Your task to perform on an android device: Do I have any events this weekend? Image 0: 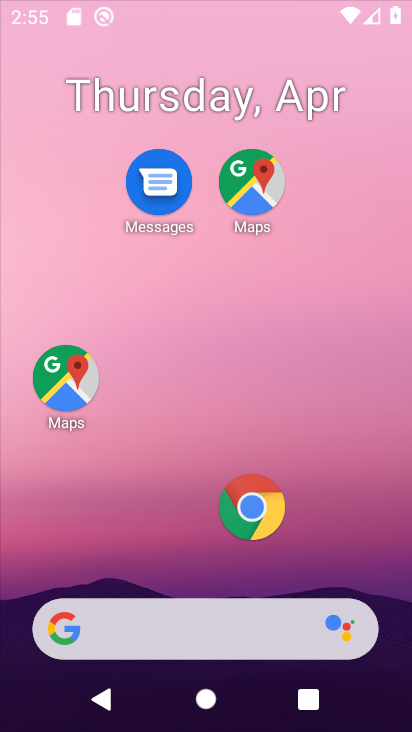
Step 0: click (241, 485)
Your task to perform on an android device: Do I have any events this weekend? Image 1: 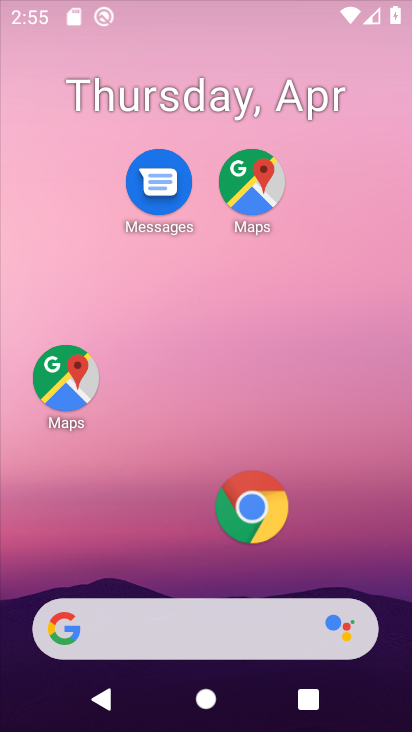
Step 1: drag from (152, 547) to (223, 268)
Your task to perform on an android device: Do I have any events this weekend? Image 2: 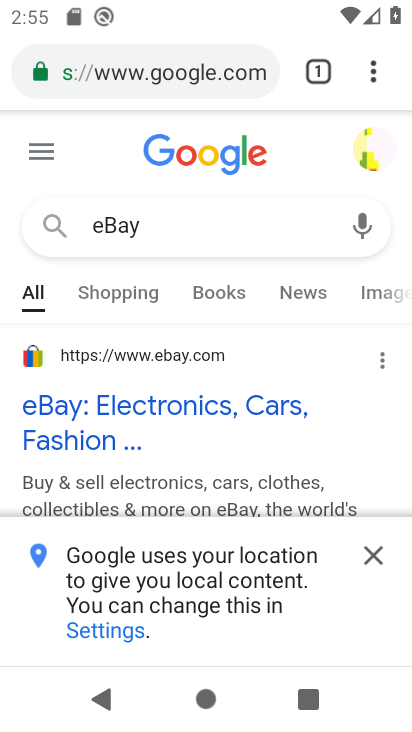
Step 2: press home button
Your task to perform on an android device: Do I have any events this weekend? Image 3: 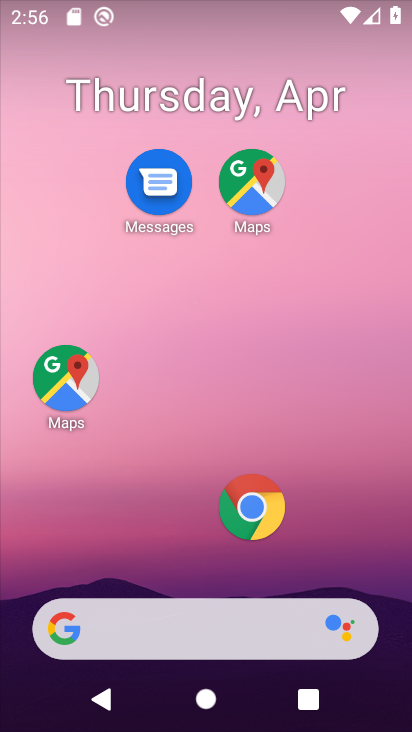
Step 3: drag from (153, 540) to (284, 71)
Your task to perform on an android device: Do I have any events this weekend? Image 4: 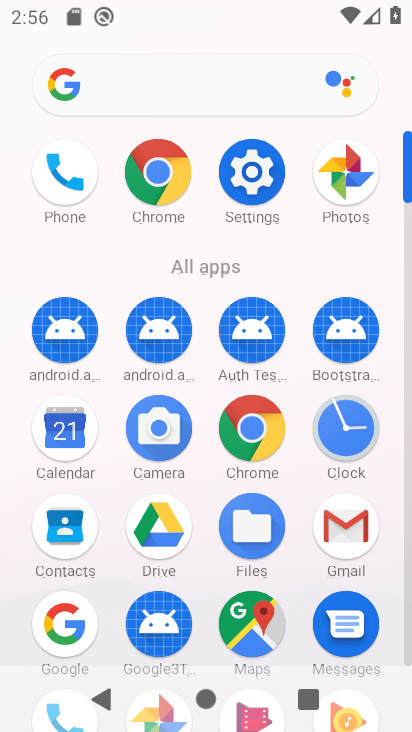
Step 4: click (69, 439)
Your task to perform on an android device: Do I have any events this weekend? Image 5: 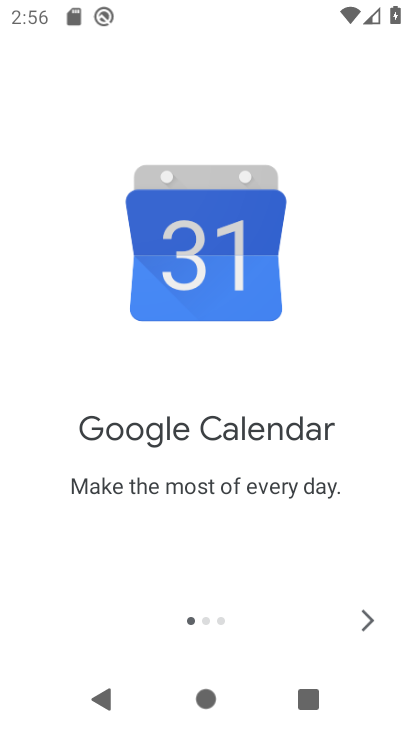
Step 5: click (364, 622)
Your task to perform on an android device: Do I have any events this weekend? Image 6: 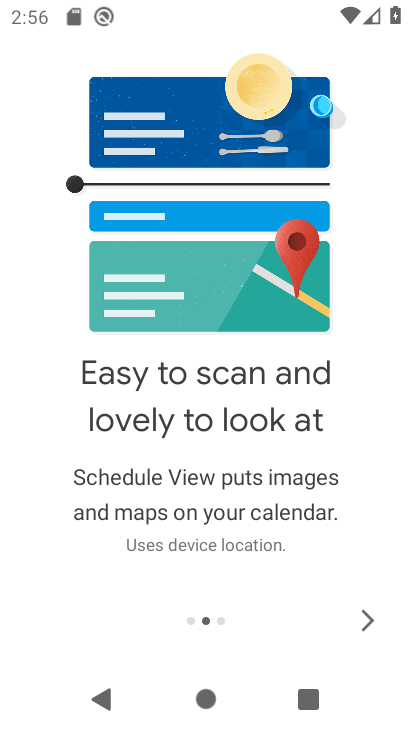
Step 6: click (364, 622)
Your task to perform on an android device: Do I have any events this weekend? Image 7: 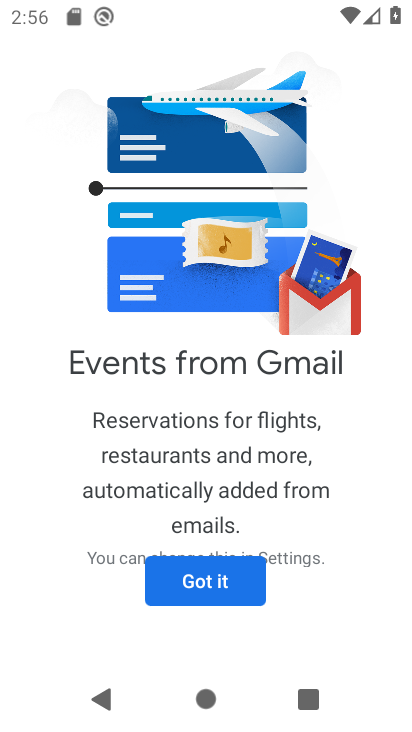
Step 7: click (259, 580)
Your task to perform on an android device: Do I have any events this weekend? Image 8: 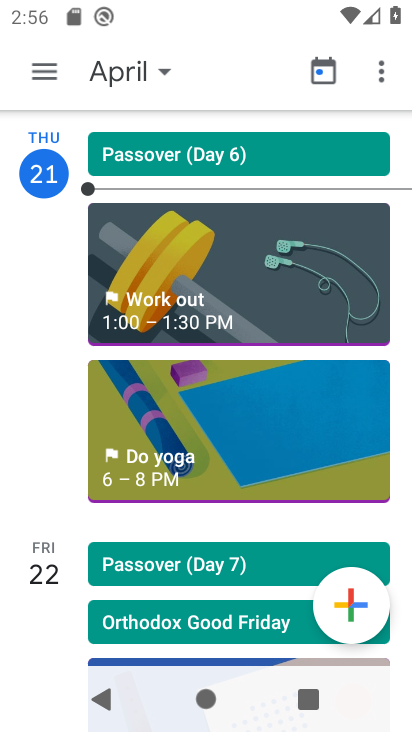
Step 8: click (39, 65)
Your task to perform on an android device: Do I have any events this weekend? Image 9: 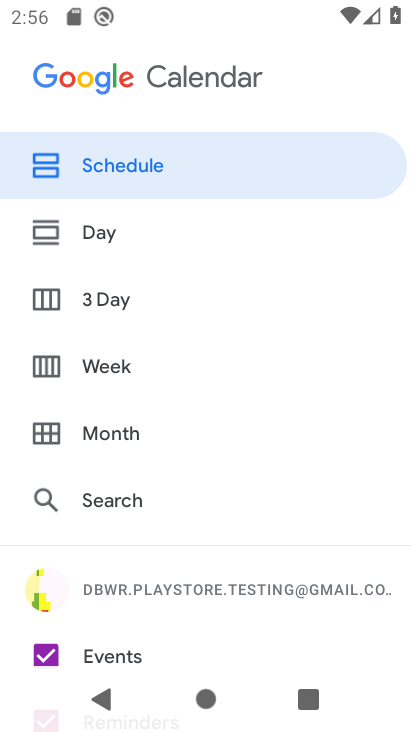
Step 9: click (131, 367)
Your task to perform on an android device: Do I have any events this weekend? Image 10: 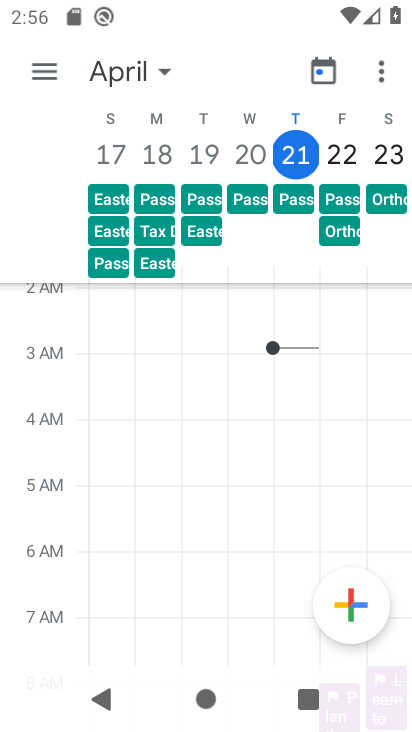
Step 10: click (52, 88)
Your task to perform on an android device: Do I have any events this weekend? Image 11: 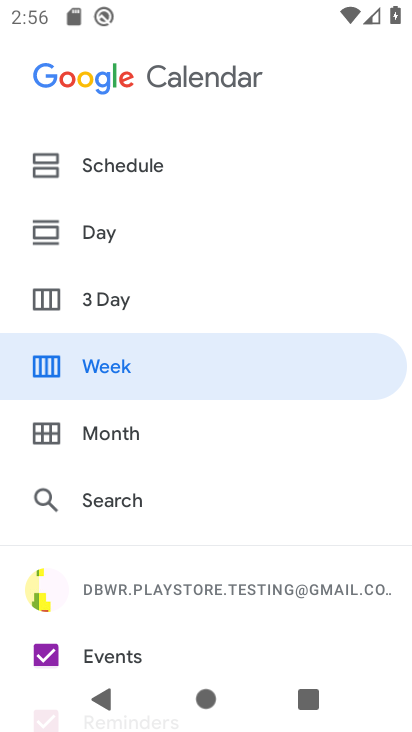
Step 11: drag from (97, 630) to (193, 173)
Your task to perform on an android device: Do I have any events this weekend? Image 12: 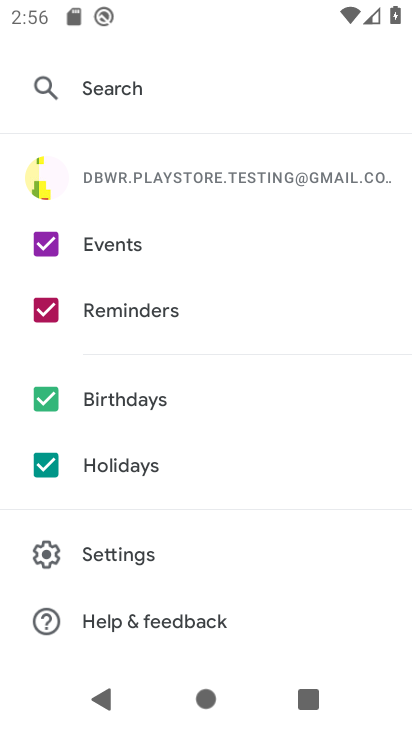
Step 12: click (55, 316)
Your task to perform on an android device: Do I have any events this weekend? Image 13: 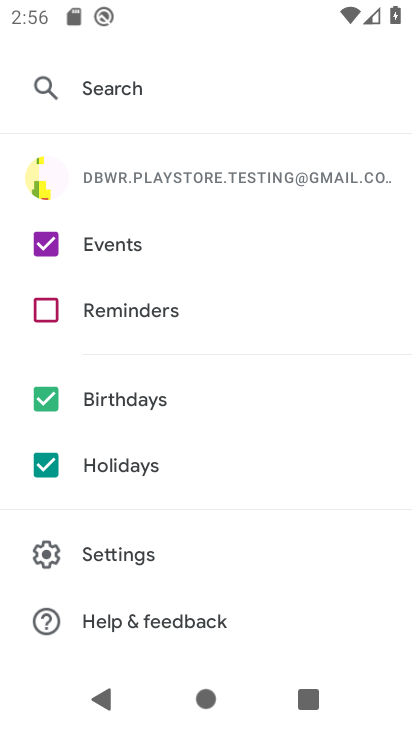
Step 13: click (45, 398)
Your task to perform on an android device: Do I have any events this weekend? Image 14: 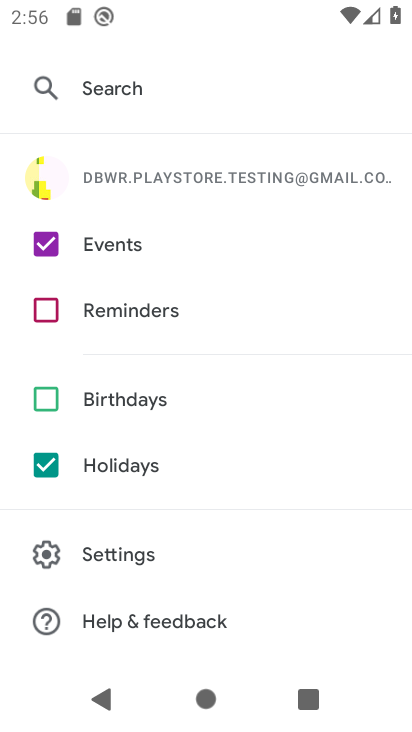
Step 14: click (46, 469)
Your task to perform on an android device: Do I have any events this weekend? Image 15: 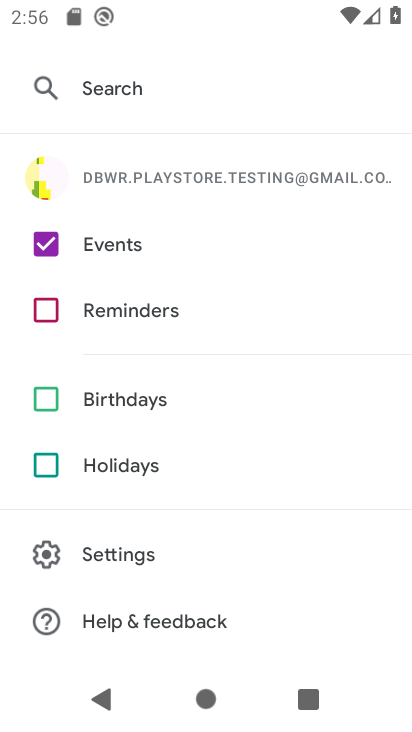
Step 15: drag from (130, 159) to (115, 248)
Your task to perform on an android device: Do I have any events this weekend? Image 16: 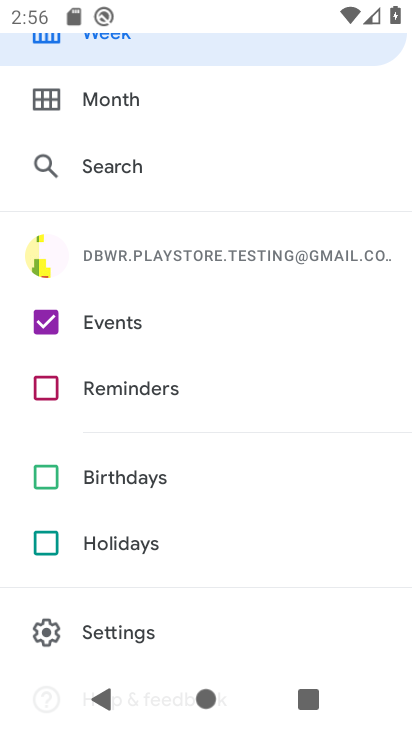
Step 16: click (129, 54)
Your task to perform on an android device: Do I have any events this weekend? Image 17: 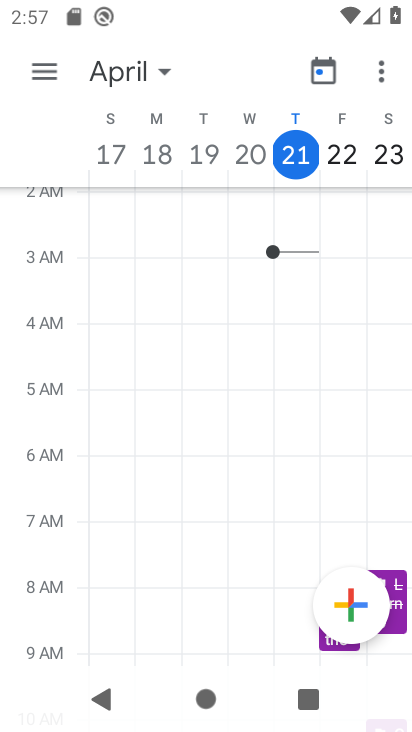
Step 17: task complete